Your task to perform on an android device: open a bookmark in the chrome app Image 0: 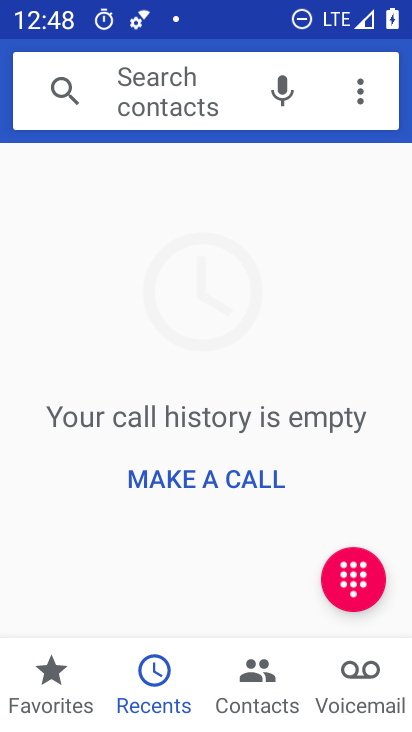
Step 0: press home button
Your task to perform on an android device: open a bookmark in the chrome app Image 1: 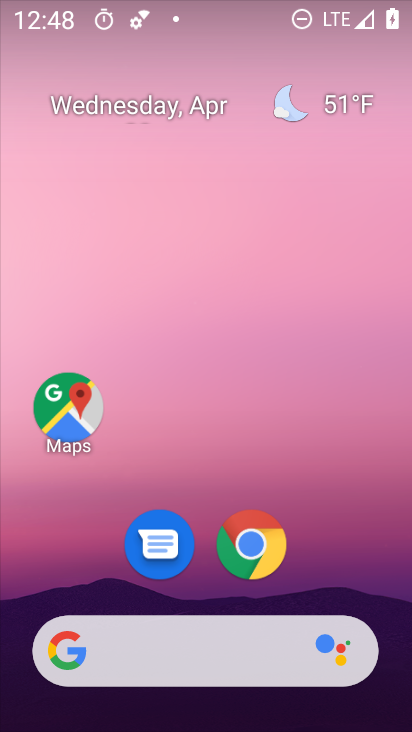
Step 1: drag from (354, 535) to (331, 102)
Your task to perform on an android device: open a bookmark in the chrome app Image 2: 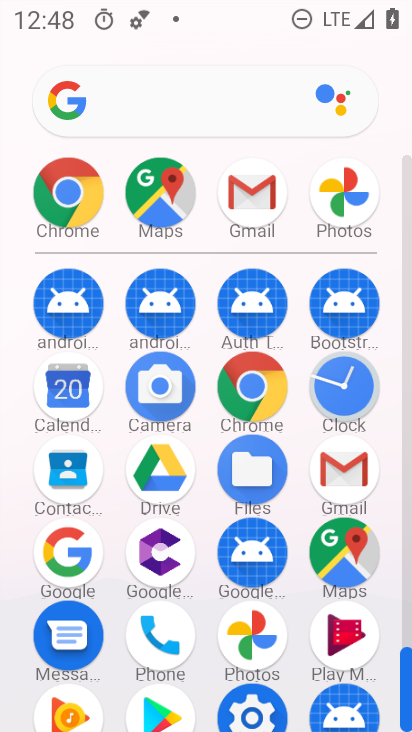
Step 2: click (260, 372)
Your task to perform on an android device: open a bookmark in the chrome app Image 3: 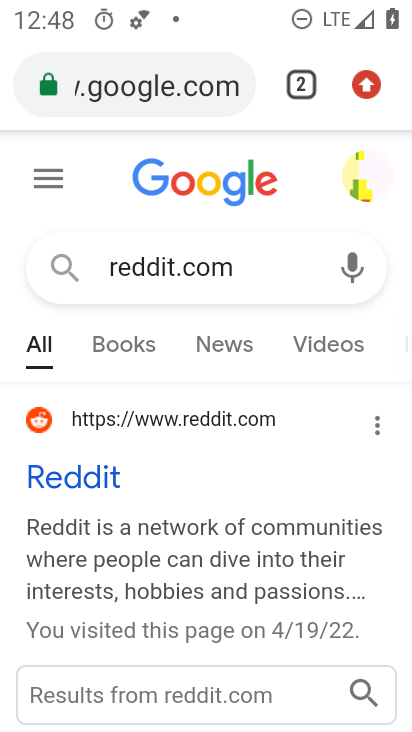
Step 3: click (361, 81)
Your task to perform on an android device: open a bookmark in the chrome app Image 4: 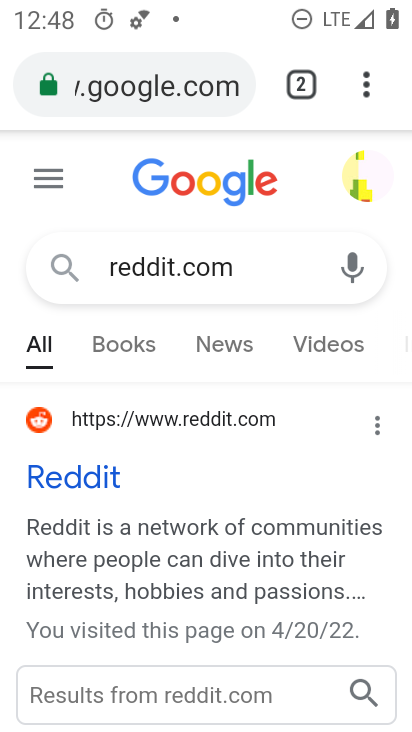
Step 4: click (367, 83)
Your task to perform on an android device: open a bookmark in the chrome app Image 5: 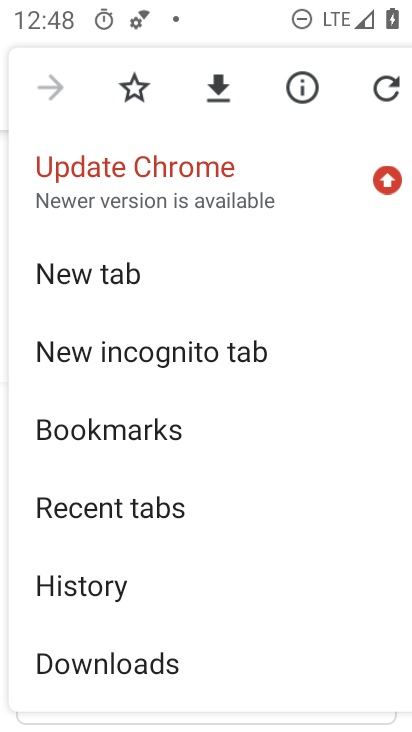
Step 5: drag from (340, 568) to (334, 368)
Your task to perform on an android device: open a bookmark in the chrome app Image 6: 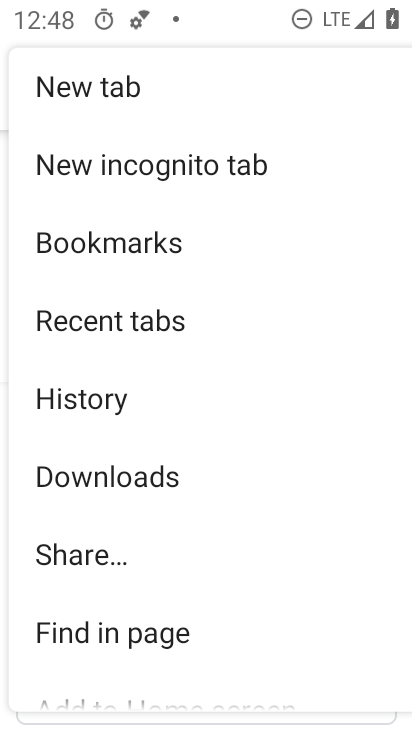
Step 6: drag from (291, 599) to (319, 330)
Your task to perform on an android device: open a bookmark in the chrome app Image 7: 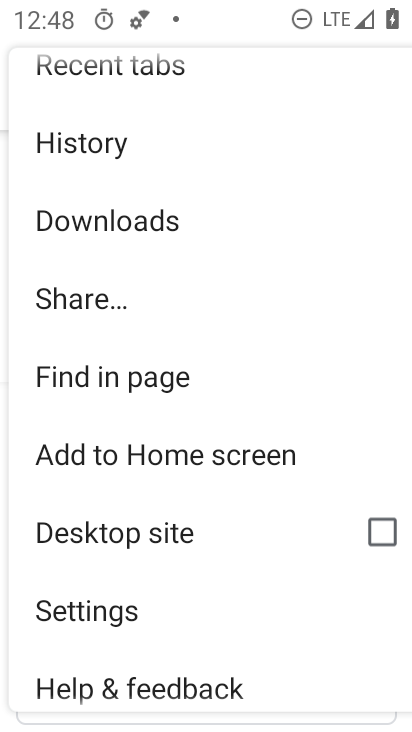
Step 7: drag from (303, 607) to (317, 283)
Your task to perform on an android device: open a bookmark in the chrome app Image 8: 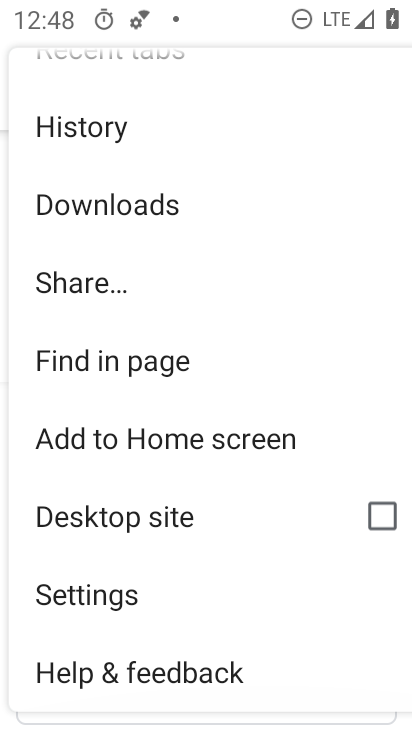
Step 8: drag from (313, 227) to (302, 488)
Your task to perform on an android device: open a bookmark in the chrome app Image 9: 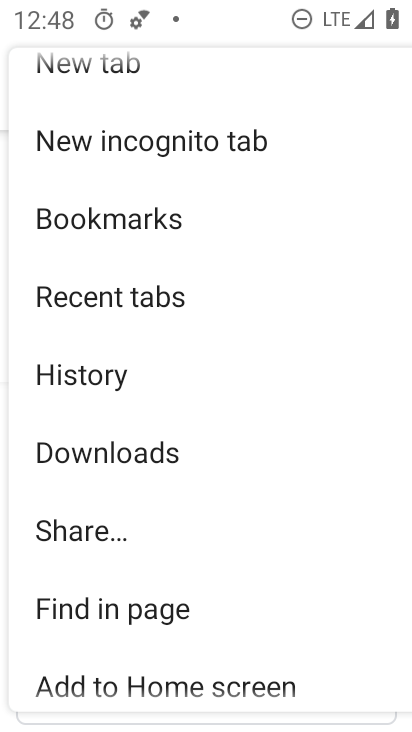
Step 9: drag from (303, 301) to (279, 496)
Your task to perform on an android device: open a bookmark in the chrome app Image 10: 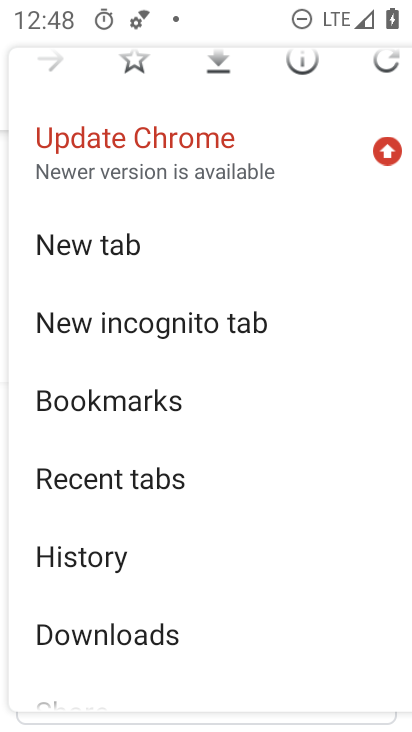
Step 10: drag from (302, 303) to (302, 439)
Your task to perform on an android device: open a bookmark in the chrome app Image 11: 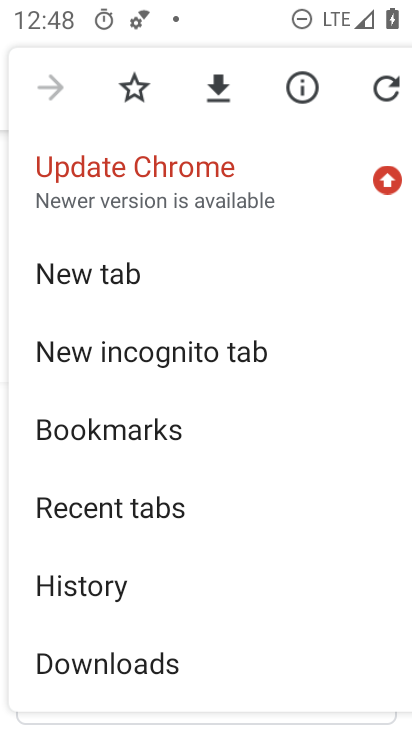
Step 11: click (136, 433)
Your task to perform on an android device: open a bookmark in the chrome app Image 12: 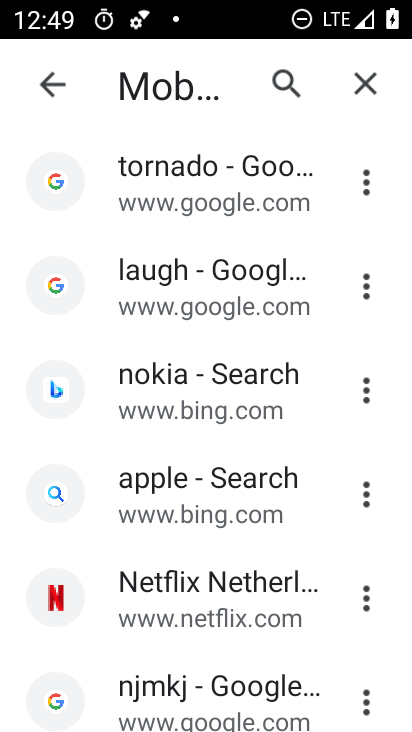
Step 12: click (202, 386)
Your task to perform on an android device: open a bookmark in the chrome app Image 13: 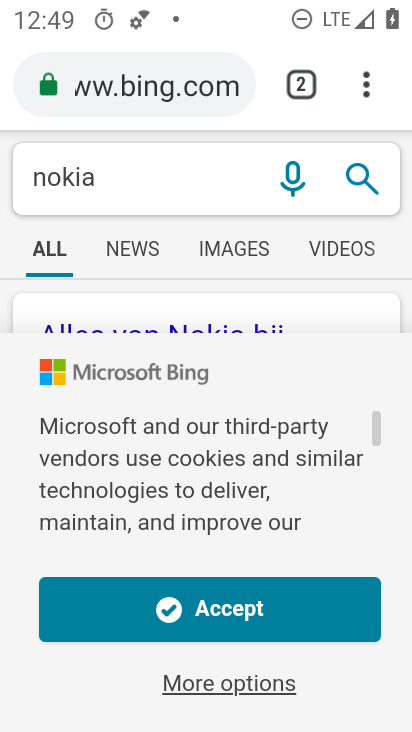
Step 13: task complete